Your task to perform on an android device: turn off smart reply in the gmail app Image 0: 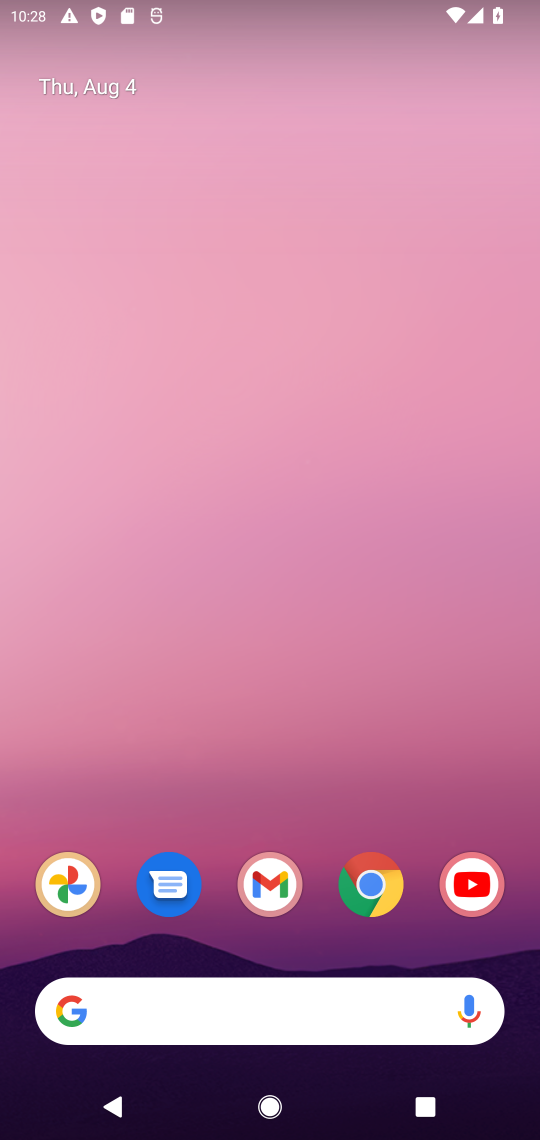
Step 0: click (265, 886)
Your task to perform on an android device: turn off smart reply in the gmail app Image 1: 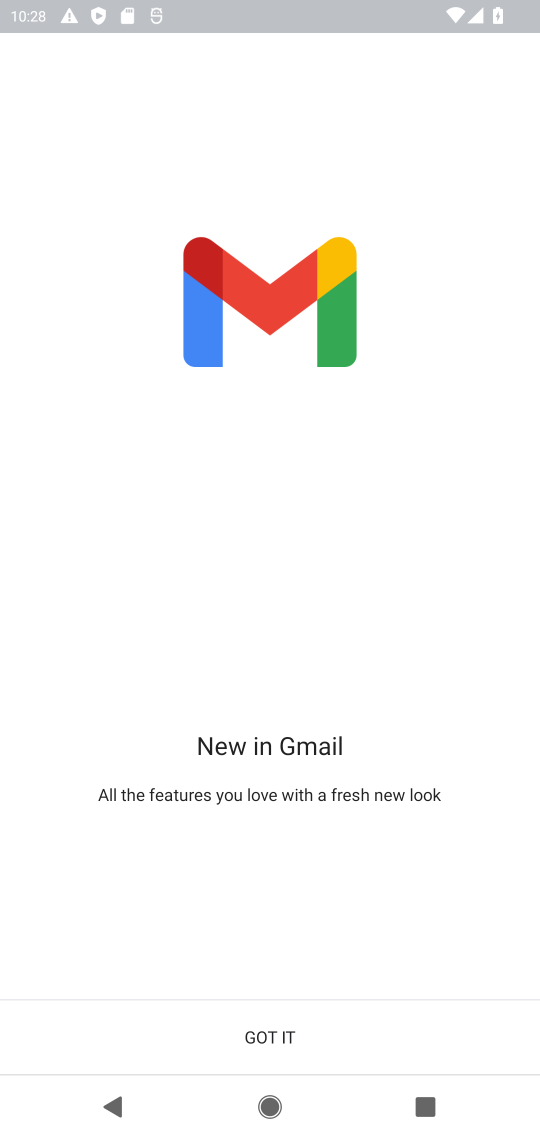
Step 1: click (278, 1034)
Your task to perform on an android device: turn off smart reply in the gmail app Image 2: 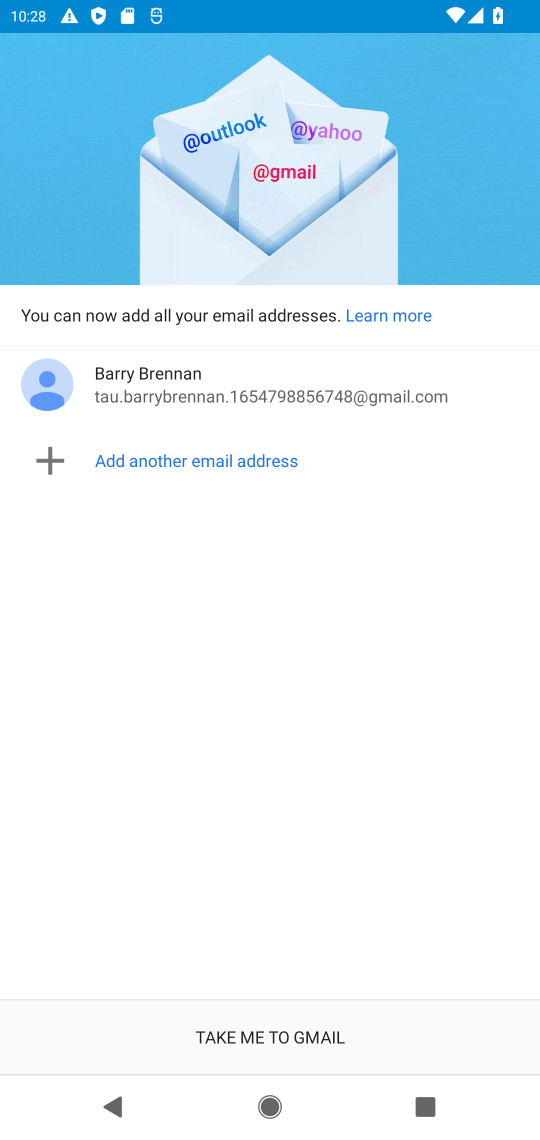
Step 2: click (336, 1036)
Your task to perform on an android device: turn off smart reply in the gmail app Image 3: 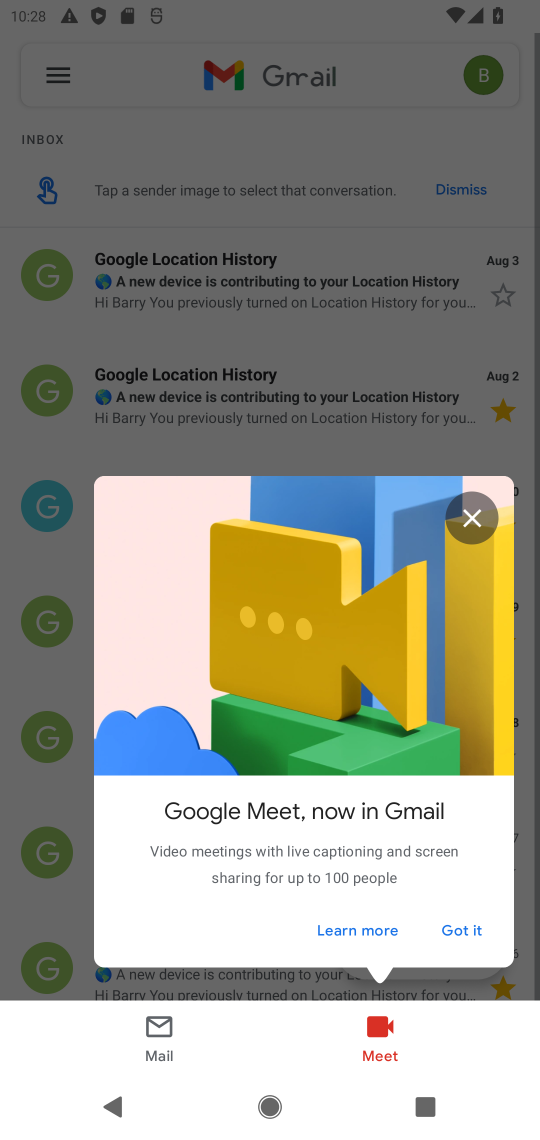
Step 3: click (485, 538)
Your task to perform on an android device: turn off smart reply in the gmail app Image 4: 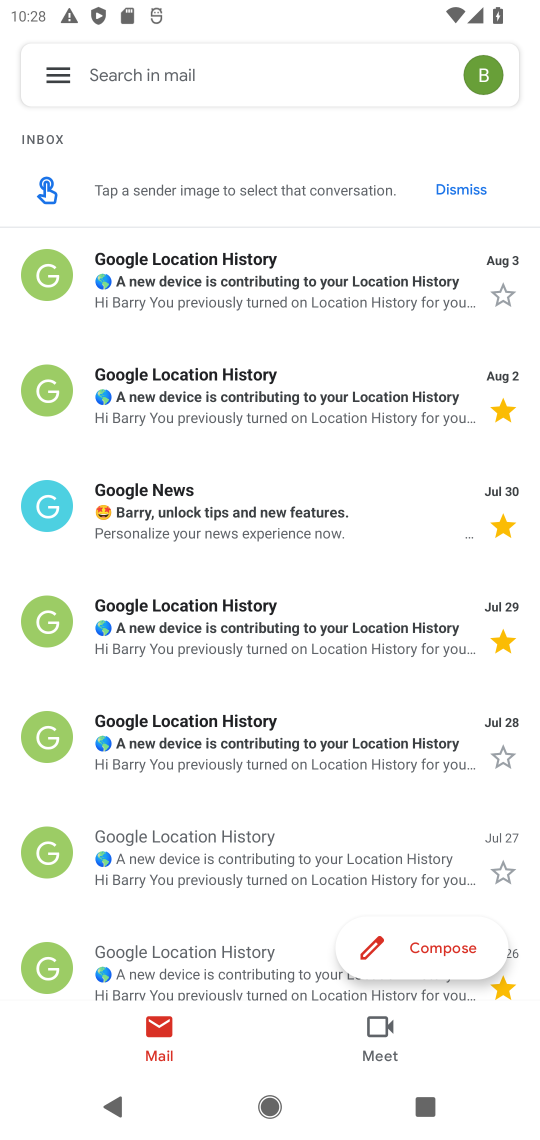
Step 4: click (62, 82)
Your task to perform on an android device: turn off smart reply in the gmail app Image 5: 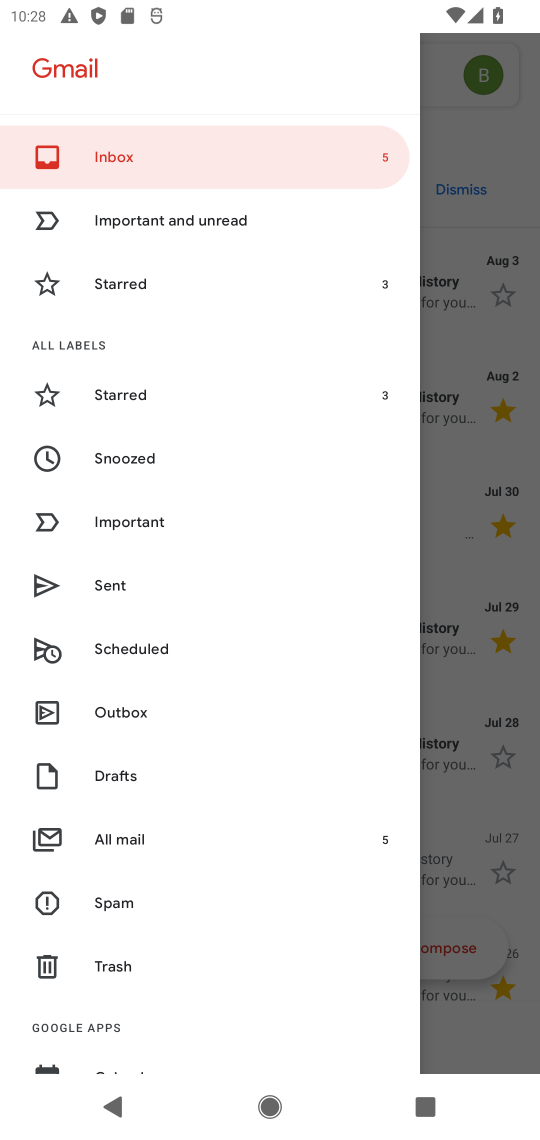
Step 5: drag from (161, 1021) to (175, 281)
Your task to perform on an android device: turn off smart reply in the gmail app Image 6: 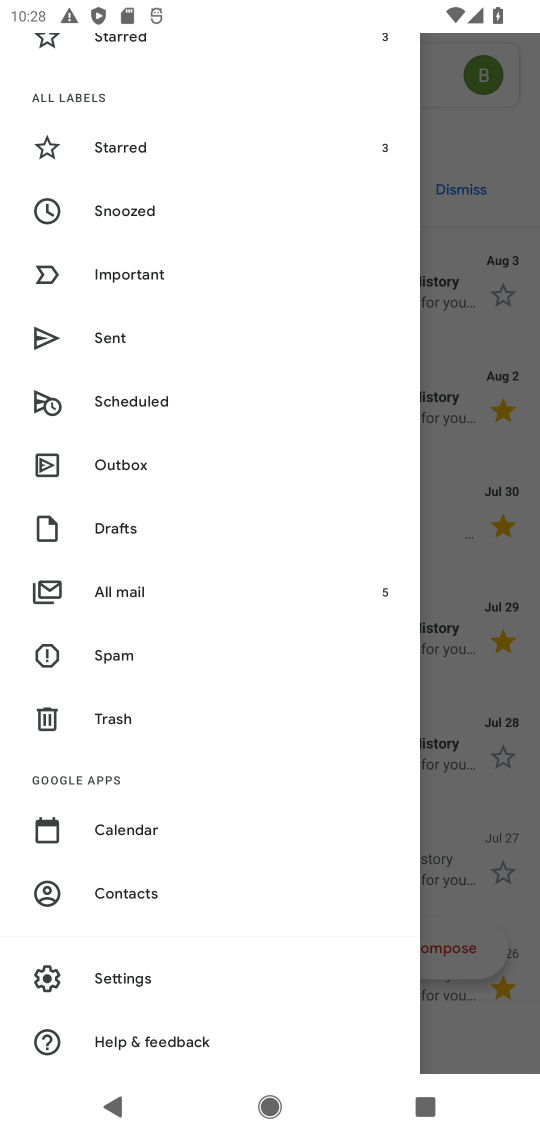
Step 6: click (165, 978)
Your task to perform on an android device: turn off smart reply in the gmail app Image 7: 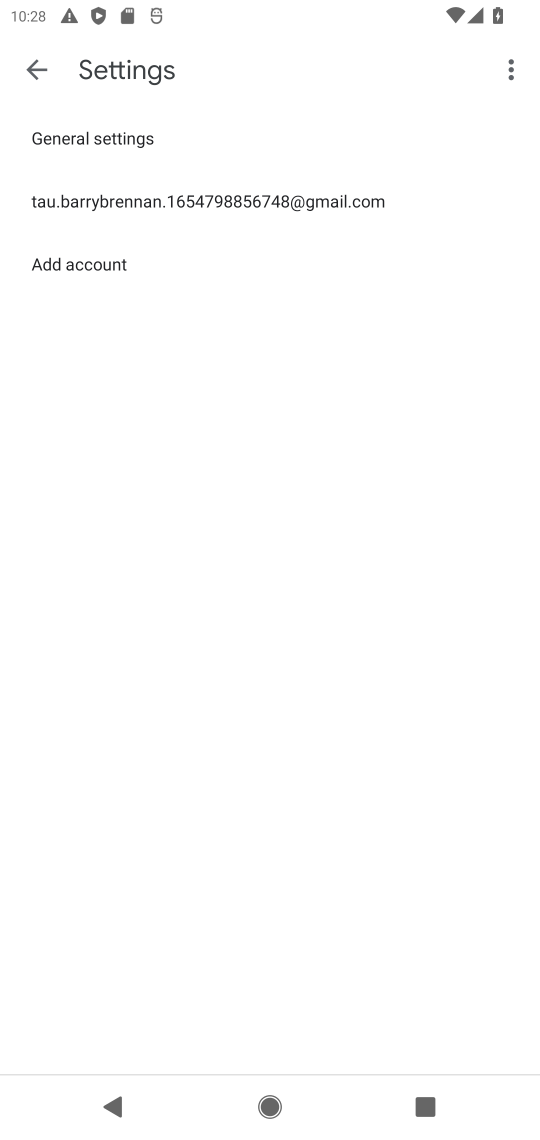
Step 7: click (179, 205)
Your task to perform on an android device: turn off smart reply in the gmail app Image 8: 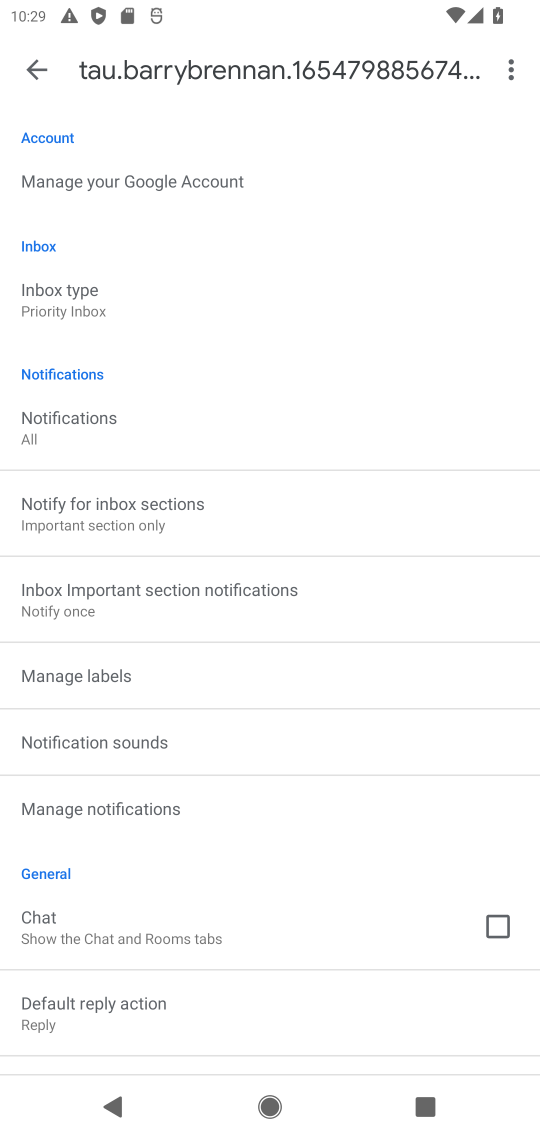
Step 8: drag from (240, 812) to (350, 141)
Your task to perform on an android device: turn off smart reply in the gmail app Image 9: 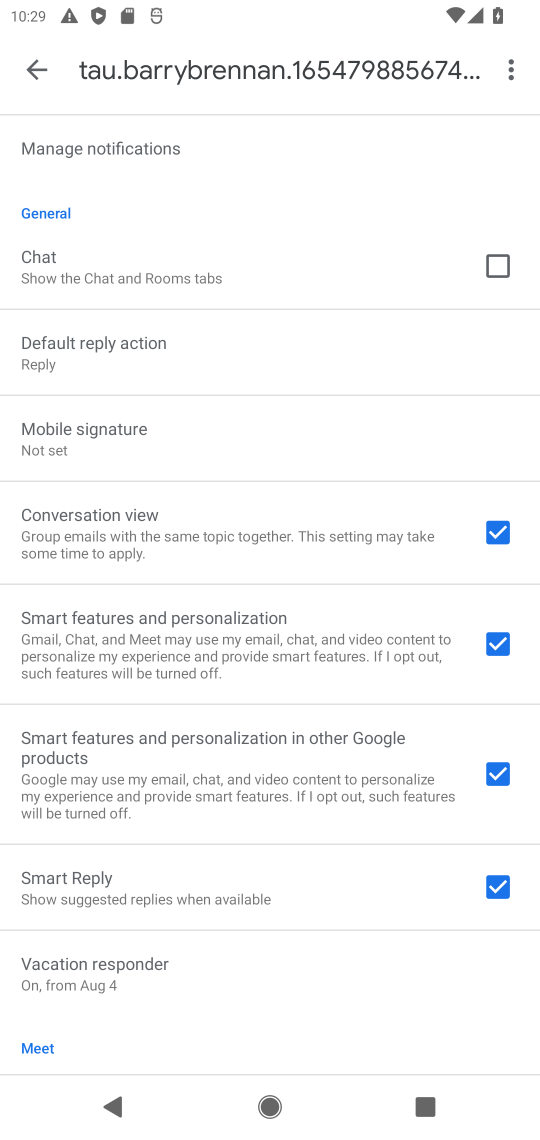
Step 9: click (501, 885)
Your task to perform on an android device: turn off smart reply in the gmail app Image 10: 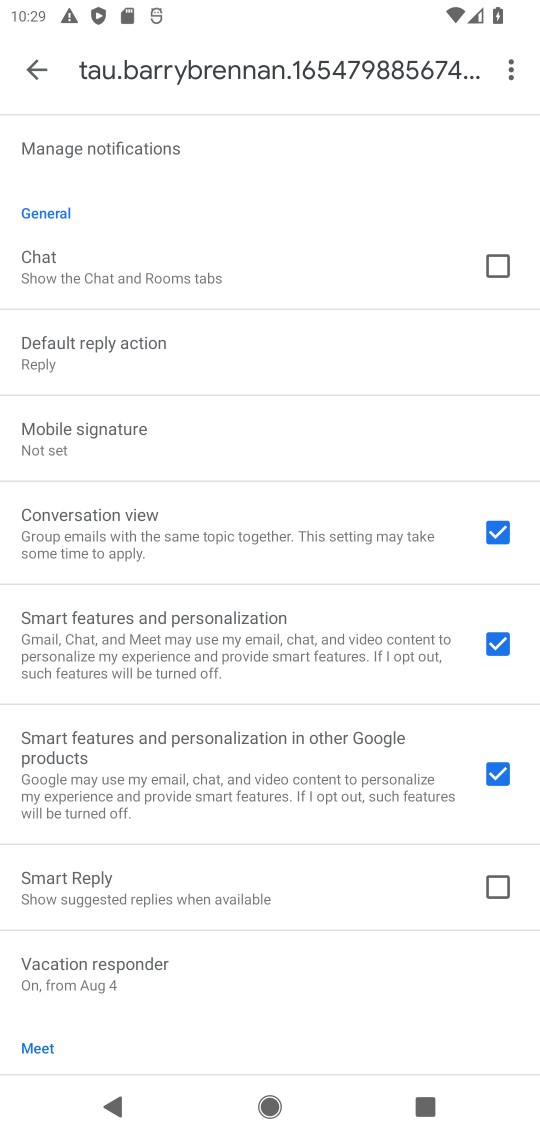
Step 10: task complete